Your task to perform on an android device: Open my contact list Image 0: 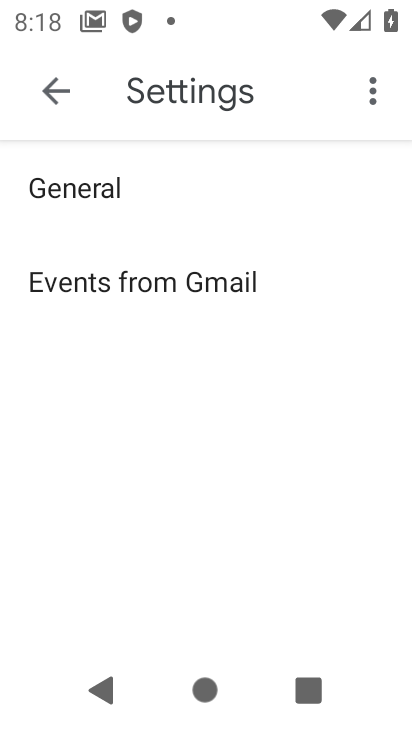
Step 0: press home button
Your task to perform on an android device: Open my contact list Image 1: 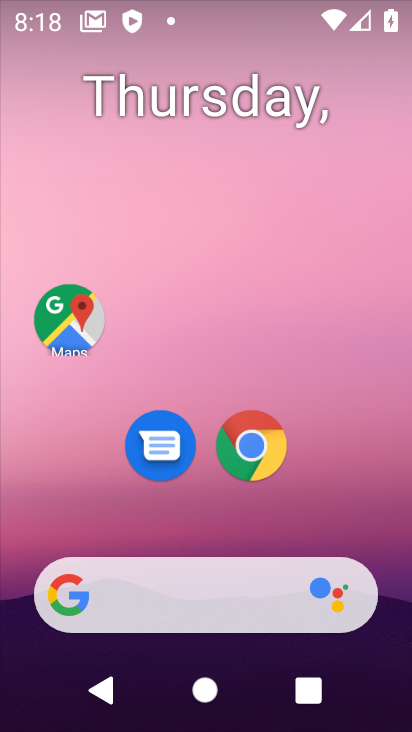
Step 1: drag from (152, 407) to (356, 139)
Your task to perform on an android device: Open my contact list Image 2: 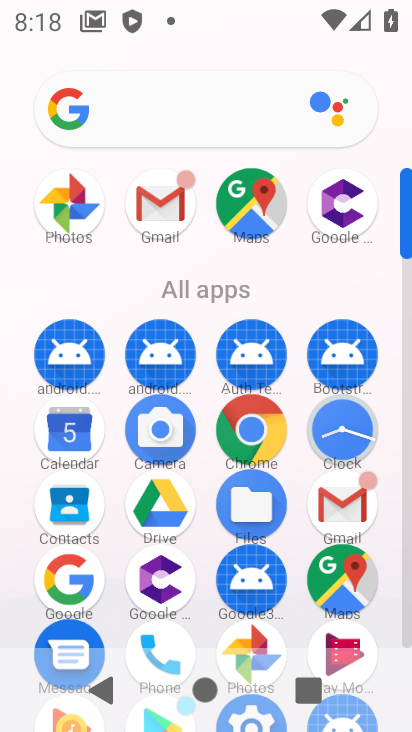
Step 2: click (63, 500)
Your task to perform on an android device: Open my contact list Image 3: 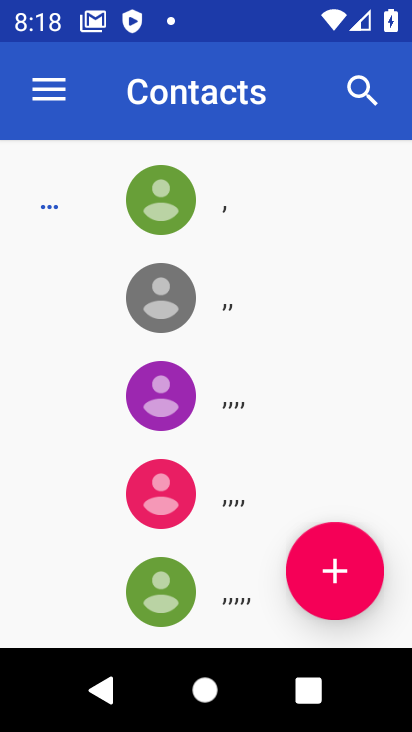
Step 3: task complete